Your task to perform on an android device: change the clock display to analog Image 0: 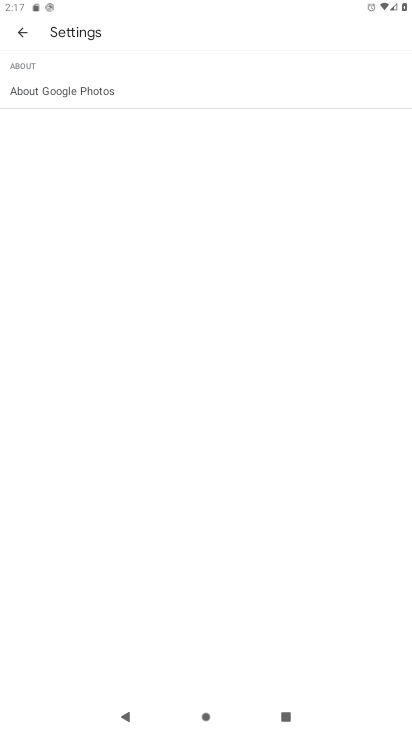
Step 0: press home button
Your task to perform on an android device: change the clock display to analog Image 1: 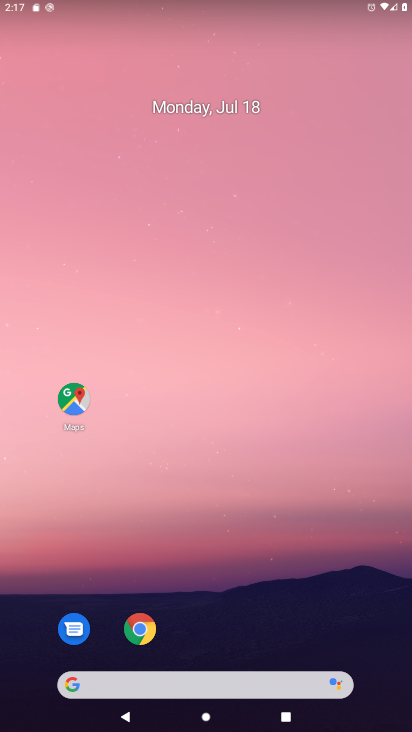
Step 1: drag from (196, 636) to (244, 64)
Your task to perform on an android device: change the clock display to analog Image 2: 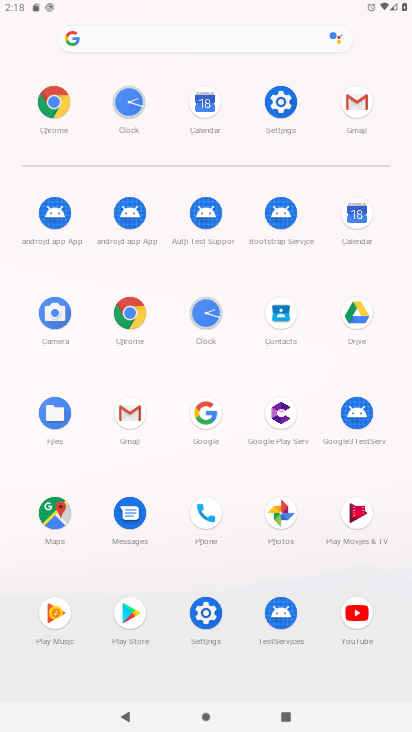
Step 2: click (203, 311)
Your task to perform on an android device: change the clock display to analog Image 3: 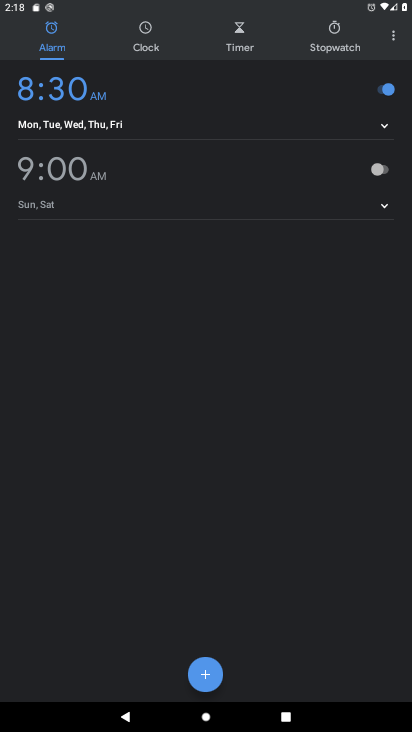
Step 3: click (392, 35)
Your task to perform on an android device: change the clock display to analog Image 4: 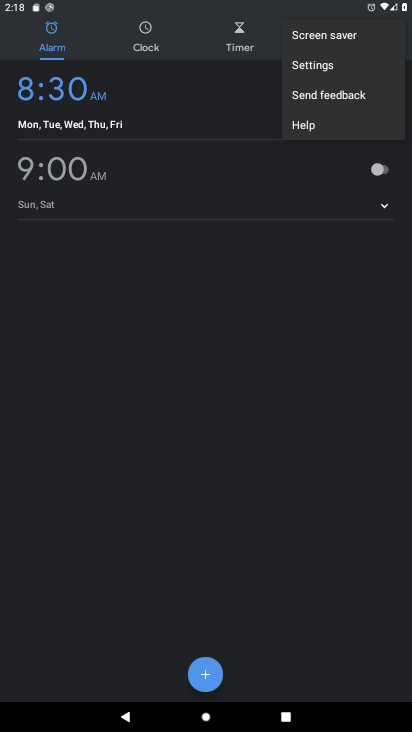
Step 4: click (304, 63)
Your task to perform on an android device: change the clock display to analog Image 5: 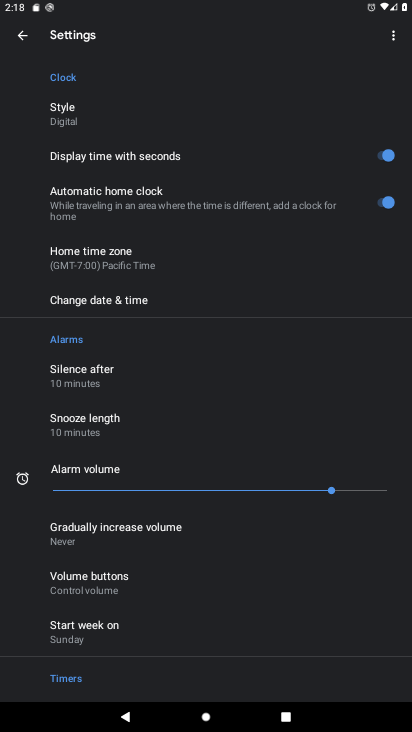
Step 5: click (64, 105)
Your task to perform on an android device: change the clock display to analog Image 6: 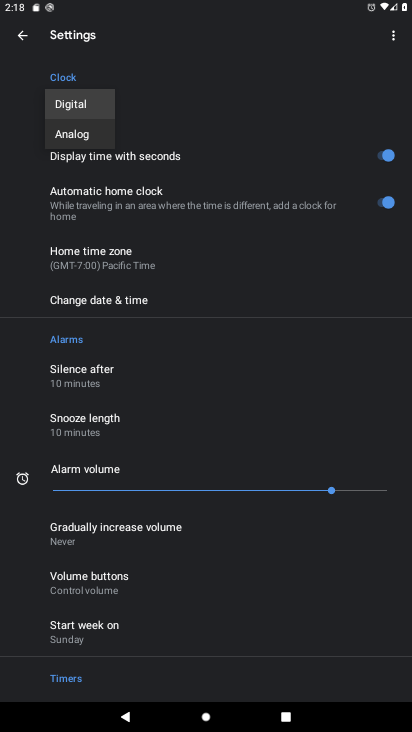
Step 6: click (64, 134)
Your task to perform on an android device: change the clock display to analog Image 7: 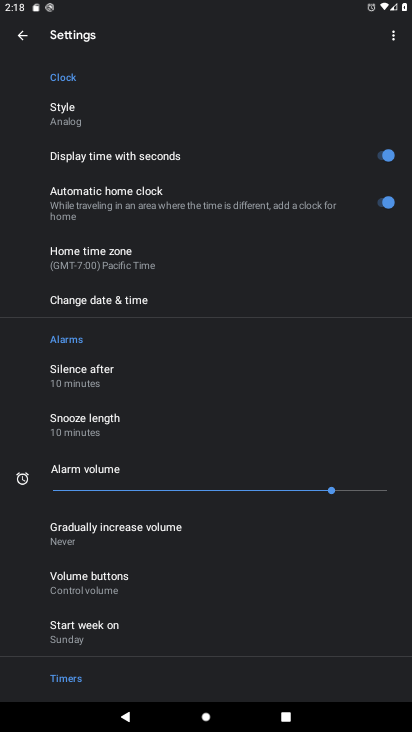
Step 7: task complete